Your task to perform on an android device: What's on my calendar today? Image 0: 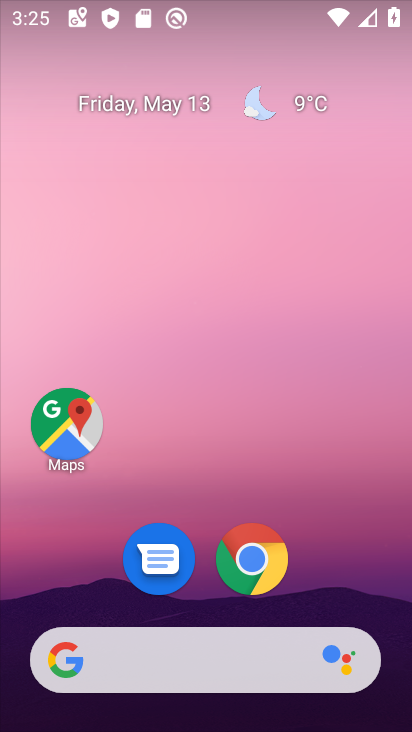
Step 0: drag from (380, 614) to (341, 113)
Your task to perform on an android device: What's on my calendar today? Image 1: 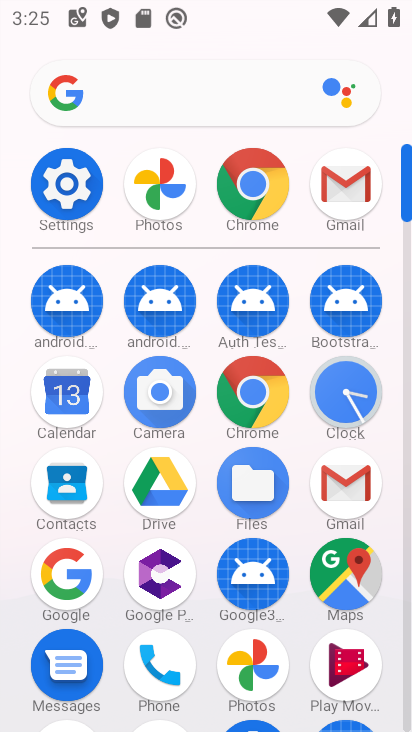
Step 1: click (406, 692)
Your task to perform on an android device: What's on my calendar today? Image 2: 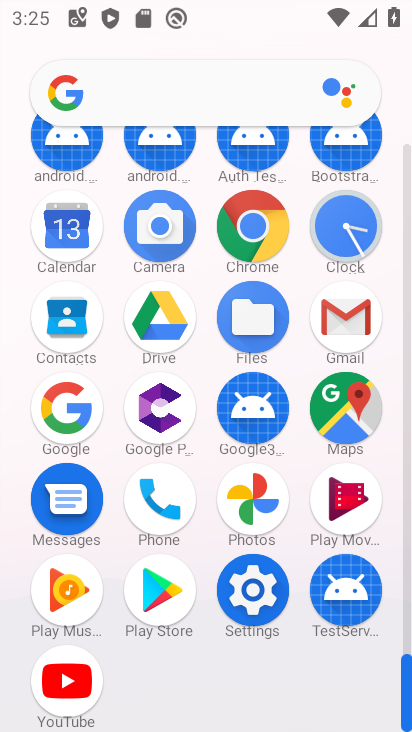
Step 2: click (56, 231)
Your task to perform on an android device: What's on my calendar today? Image 3: 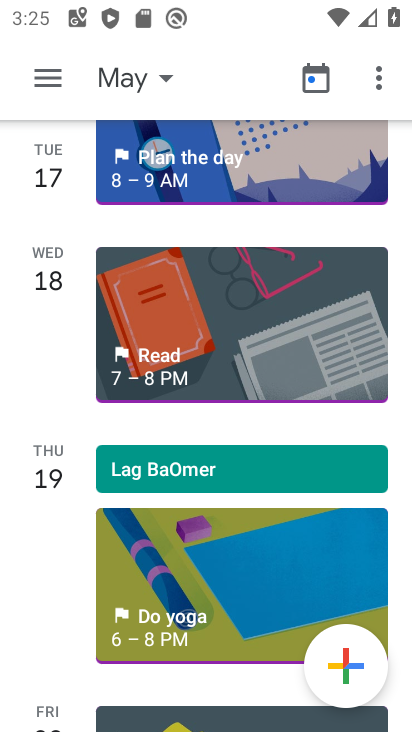
Step 3: click (46, 73)
Your task to perform on an android device: What's on my calendar today? Image 4: 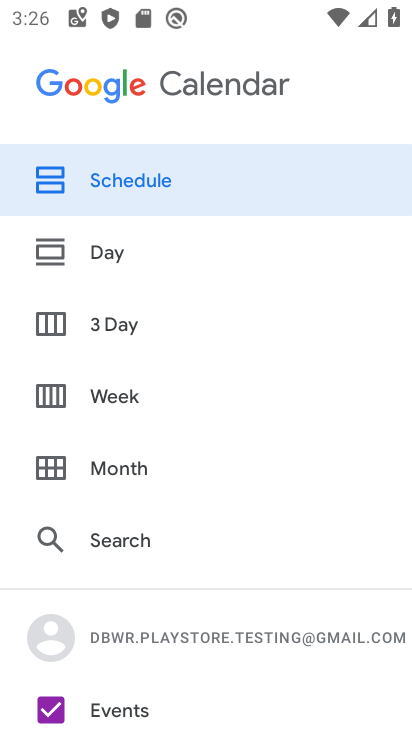
Step 4: click (93, 248)
Your task to perform on an android device: What's on my calendar today? Image 5: 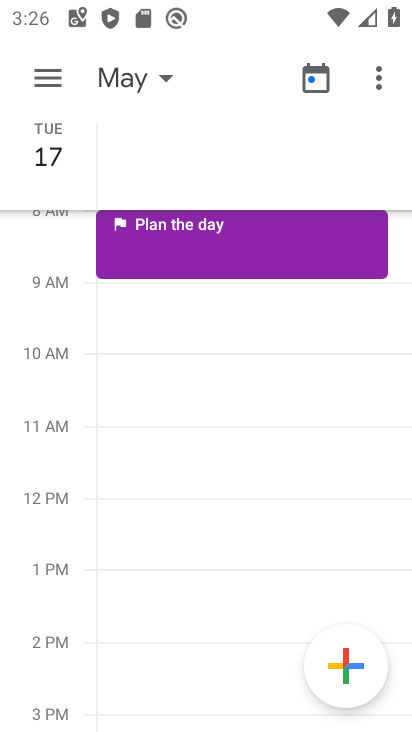
Step 5: click (200, 616)
Your task to perform on an android device: What's on my calendar today? Image 6: 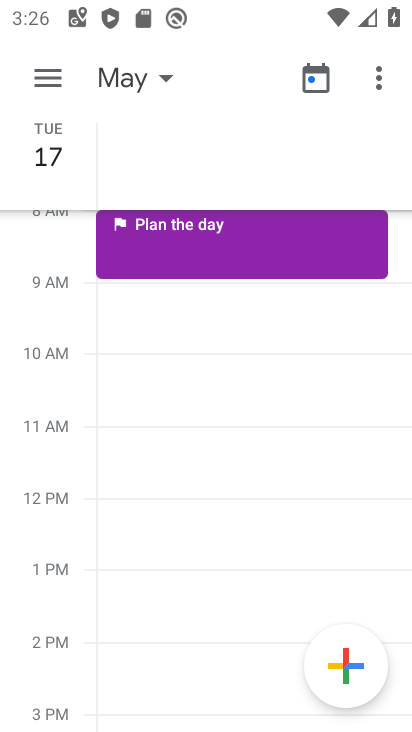
Step 6: click (168, 77)
Your task to perform on an android device: What's on my calendar today? Image 7: 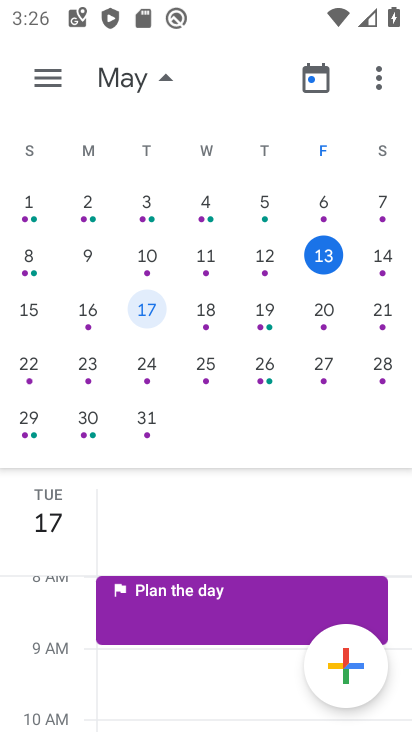
Step 7: click (311, 251)
Your task to perform on an android device: What's on my calendar today? Image 8: 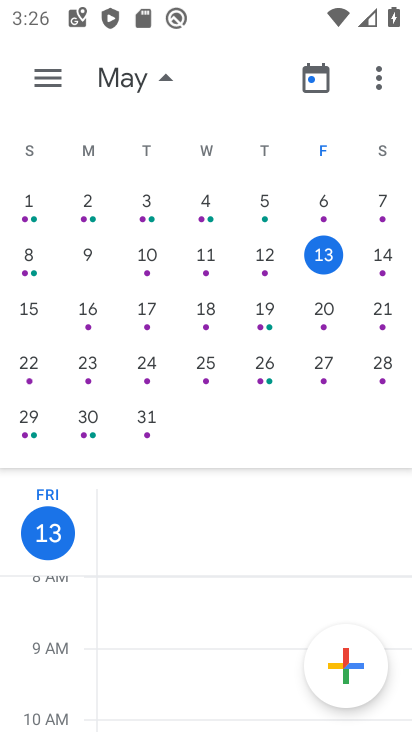
Step 8: task complete